Your task to perform on an android device: Open internet settings Image 0: 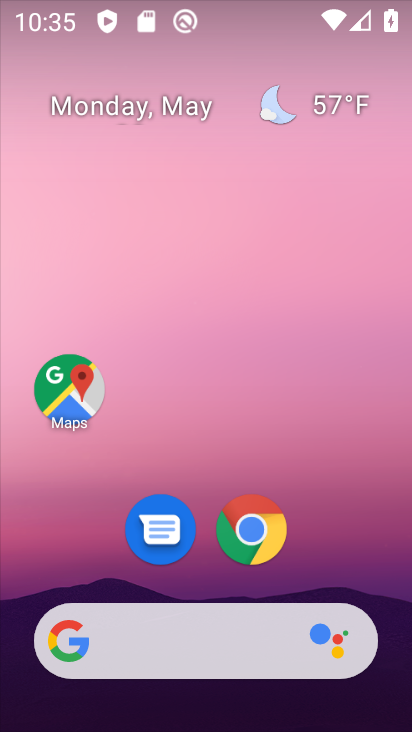
Step 0: drag from (224, 728) to (220, 6)
Your task to perform on an android device: Open internet settings Image 1: 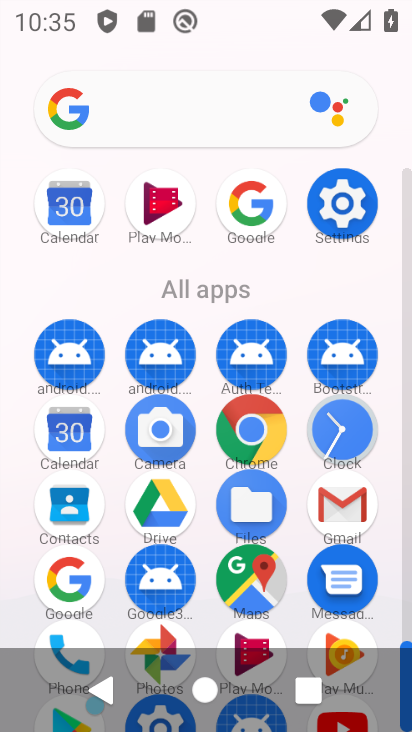
Step 1: click (348, 204)
Your task to perform on an android device: Open internet settings Image 2: 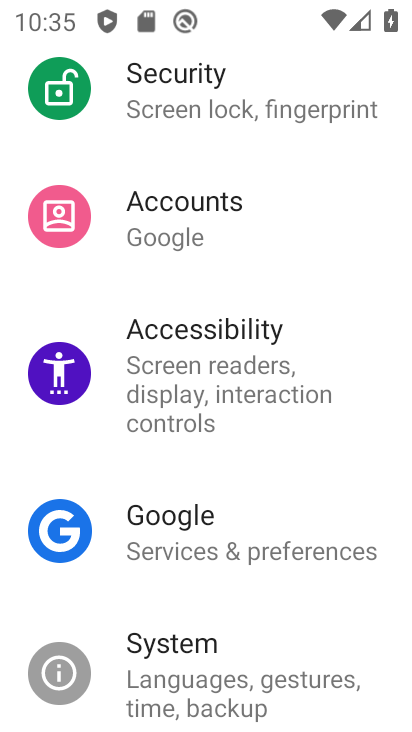
Step 2: drag from (294, 77) to (319, 468)
Your task to perform on an android device: Open internet settings Image 3: 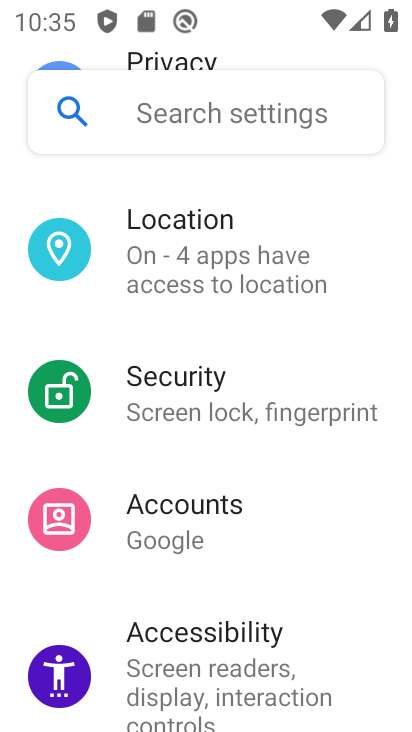
Step 3: drag from (279, 185) to (282, 593)
Your task to perform on an android device: Open internet settings Image 4: 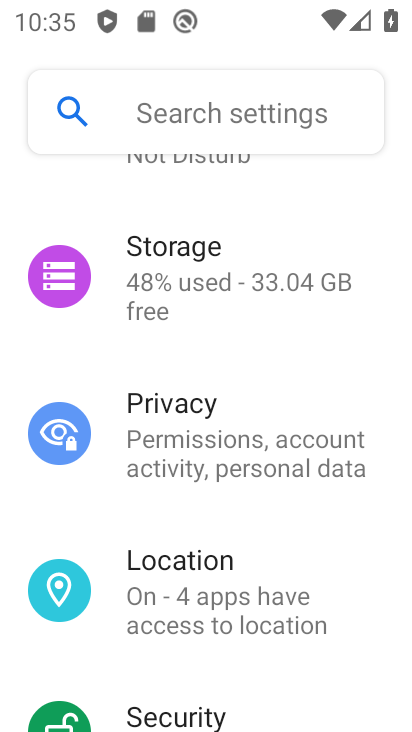
Step 4: drag from (284, 174) to (294, 246)
Your task to perform on an android device: Open internet settings Image 5: 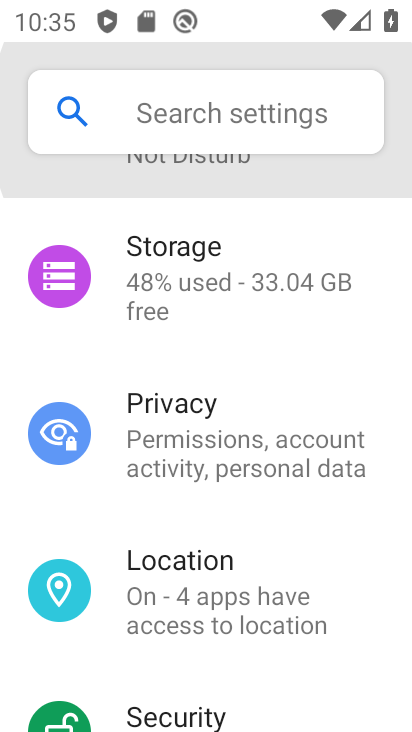
Step 5: click (316, 581)
Your task to perform on an android device: Open internet settings Image 6: 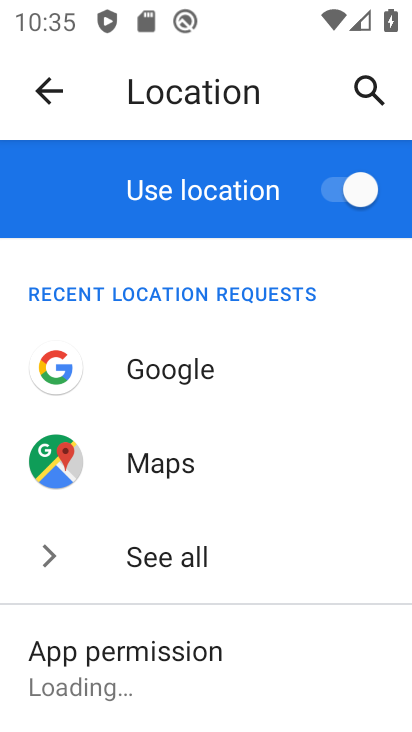
Step 6: press back button
Your task to perform on an android device: Open internet settings Image 7: 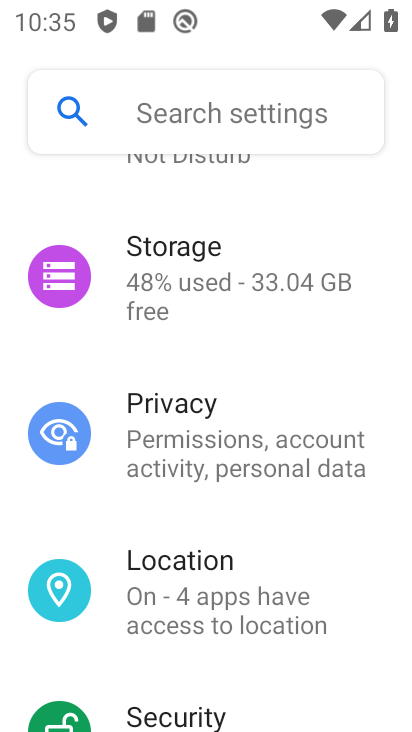
Step 7: drag from (253, 198) to (295, 585)
Your task to perform on an android device: Open internet settings Image 8: 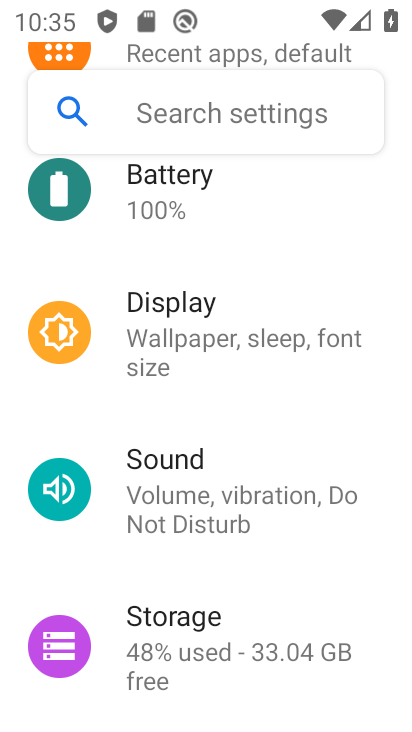
Step 8: drag from (281, 171) to (295, 571)
Your task to perform on an android device: Open internet settings Image 9: 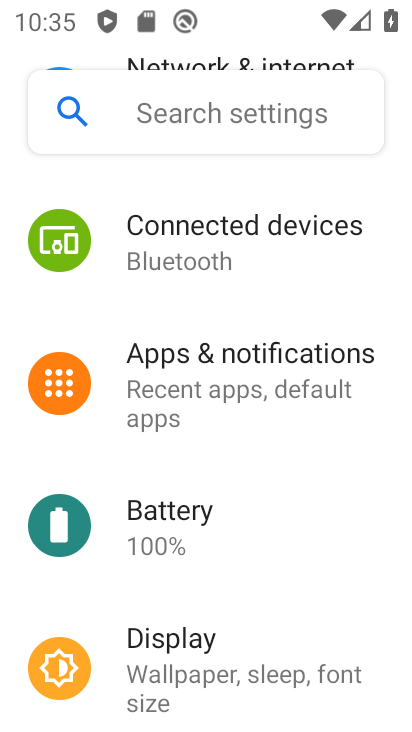
Step 9: drag from (252, 182) to (297, 558)
Your task to perform on an android device: Open internet settings Image 10: 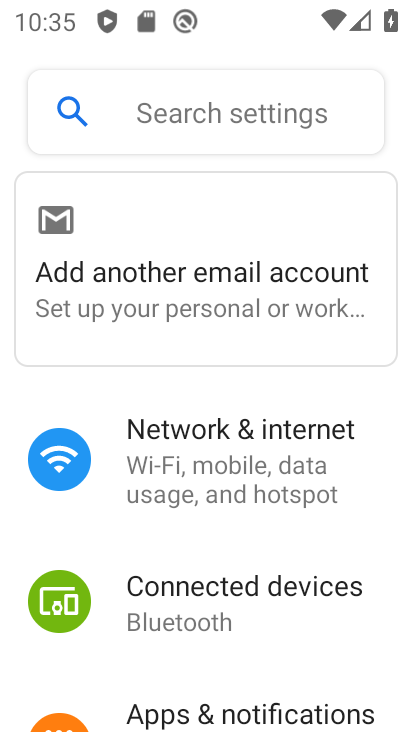
Step 10: click (195, 459)
Your task to perform on an android device: Open internet settings Image 11: 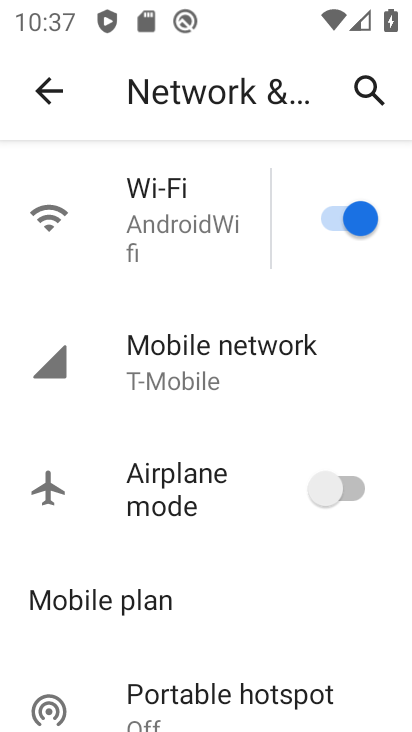
Step 11: task complete